Your task to perform on an android device: Search for sushi restaurants on Maps Image 0: 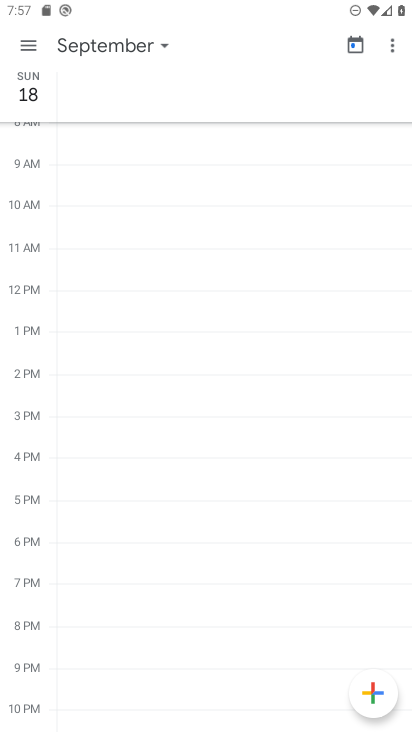
Step 0: press home button
Your task to perform on an android device: Search for sushi restaurants on Maps Image 1: 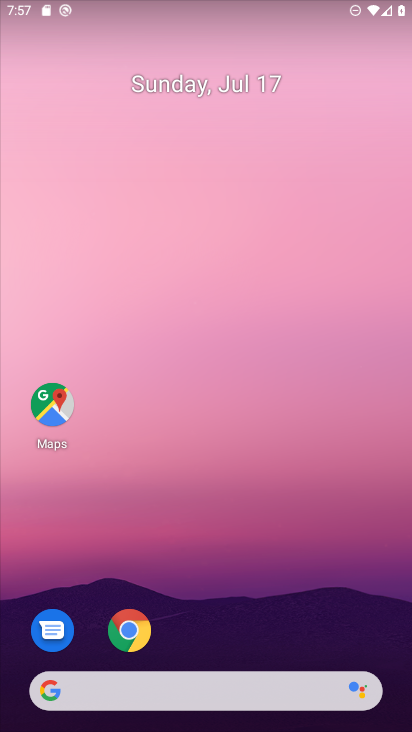
Step 1: press home button
Your task to perform on an android device: Search for sushi restaurants on Maps Image 2: 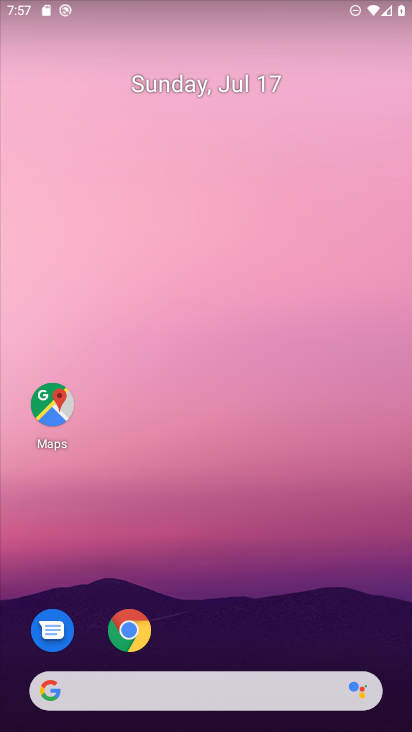
Step 2: drag from (170, 661) to (178, 228)
Your task to perform on an android device: Search for sushi restaurants on Maps Image 3: 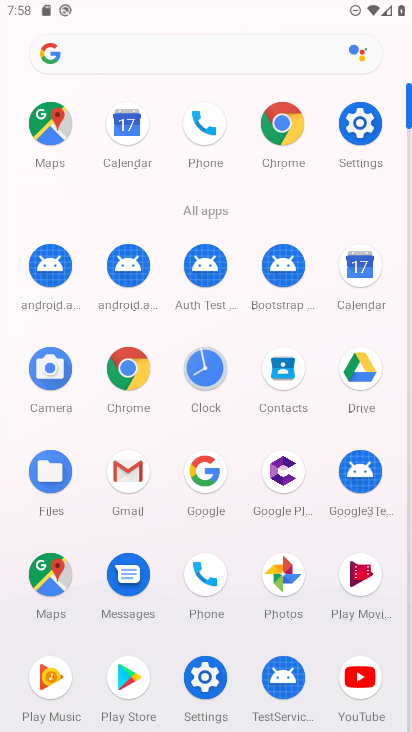
Step 3: click (34, 131)
Your task to perform on an android device: Search for sushi restaurants on Maps Image 4: 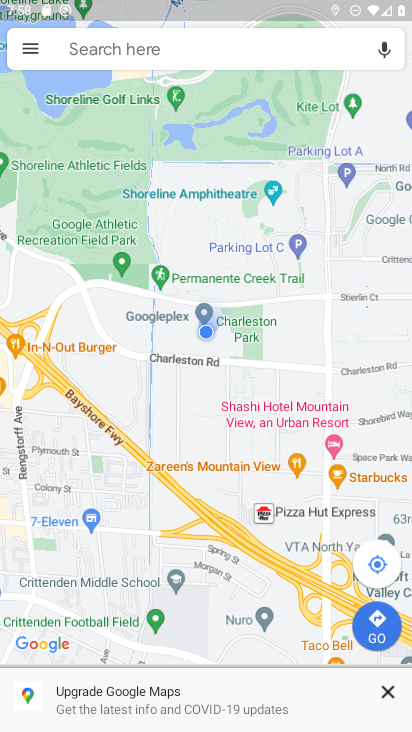
Step 4: click (181, 41)
Your task to perform on an android device: Search for sushi restaurants on Maps Image 5: 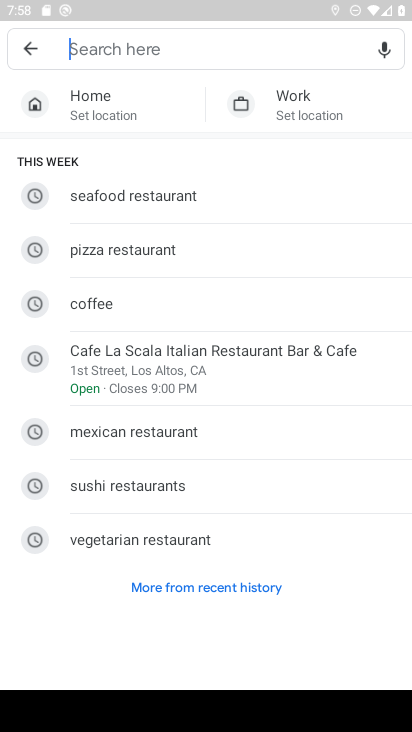
Step 5: type " sushi restaurant "
Your task to perform on an android device: Search for sushi restaurants on Maps Image 6: 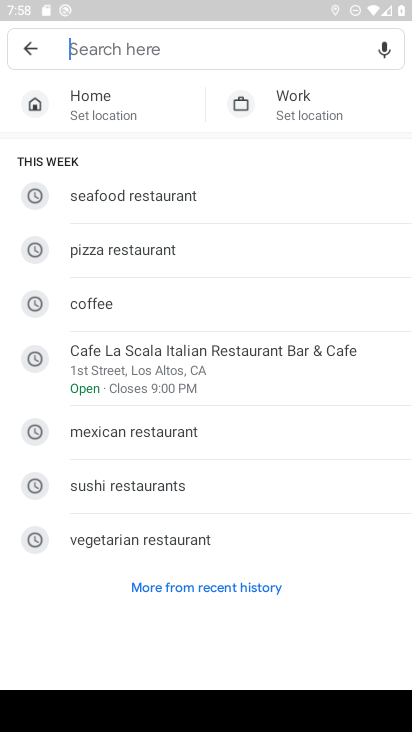
Step 6: click (142, 486)
Your task to perform on an android device: Search for sushi restaurants on Maps Image 7: 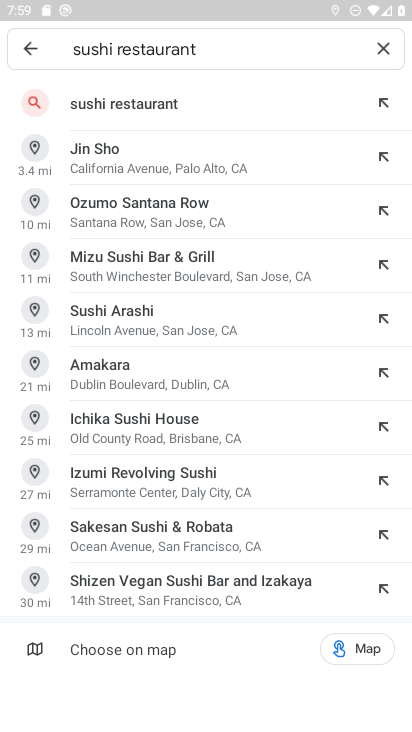
Step 7: click (143, 114)
Your task to perform on an android device: Search for sushi restaurants on Maps Image 8: 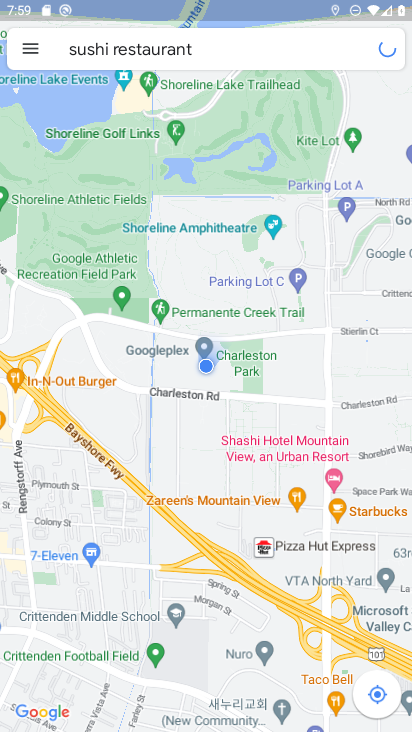
Step 8: task complete